Your task to perform on an android device: see sites visited before in the chrome app Image 0: 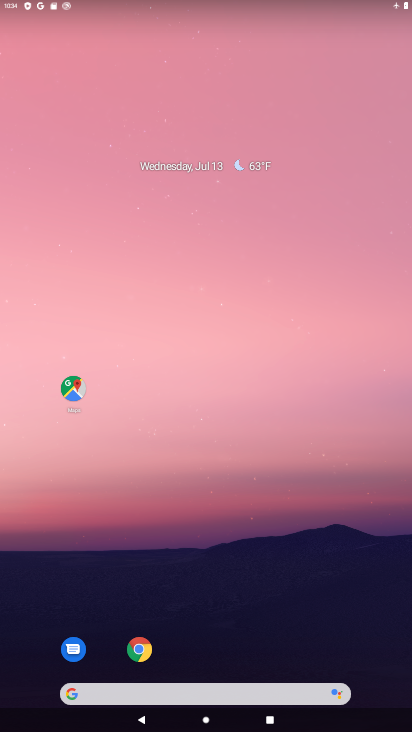
Step 0: drag from (169, 626) to (180, 164)
Your task to perform on an android device: see sites visited before in the chrome app Image 1: 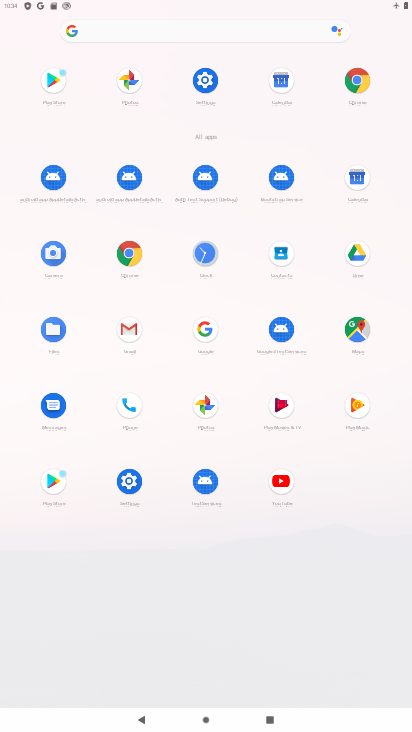
Step 1: click (364, 72)
Your task to perform on an android device: see sites visited before in the chrome app Image 2: 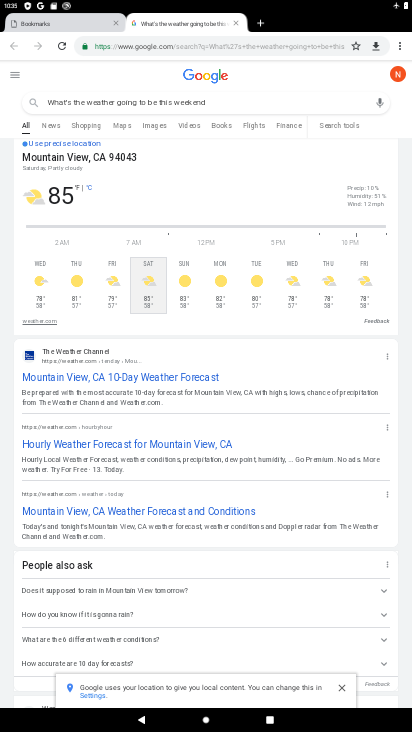
Step 2: click (399, 43)
Your task to perform on an android device: see sites visited before in the chrome app Image 3: 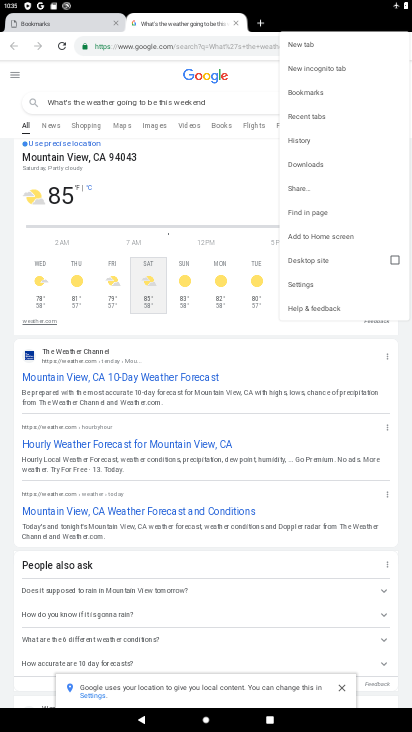
Step 3: click (321, 134)
Your task to perform on an android device: see sites visited before in the chrome app Image 4: 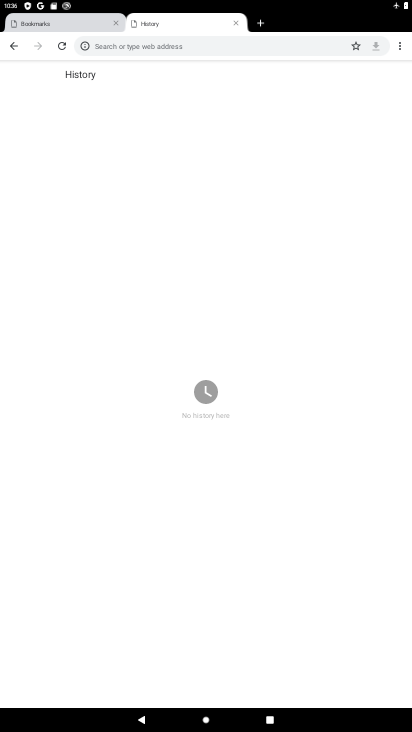
Step 4: task complete